Your task to perform on an android device: turn on data saver in the chrome app Image 0: 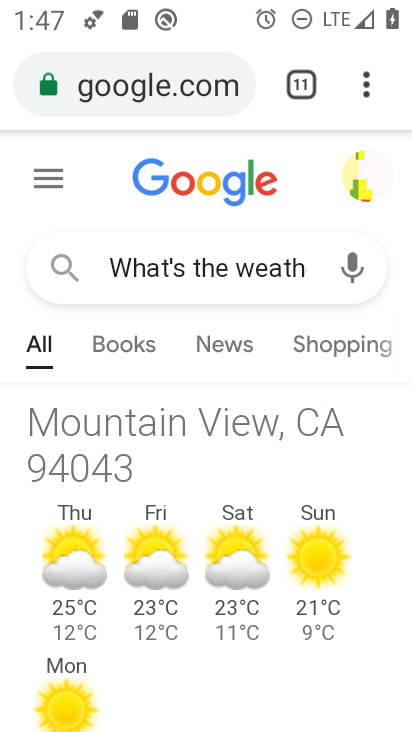
Step 0: click (370, 77)
Your task to perform on an android device: turn on data saver in the chrome app Image 1: 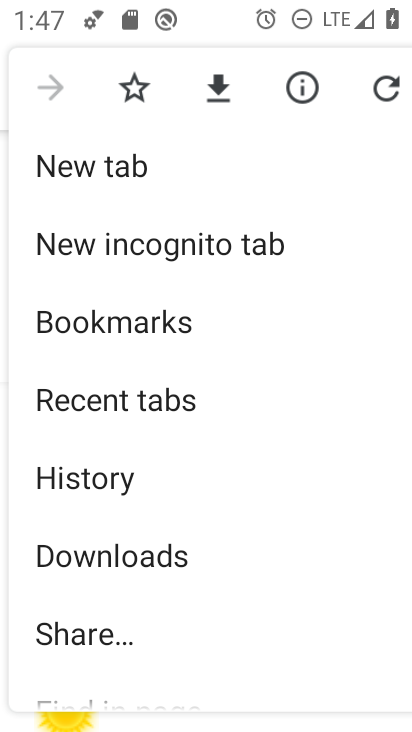
Step 1: drag from (131, 592) to (147, 530)
Your task to perform on an android device: turn on data saver in the chrome app Image 2: 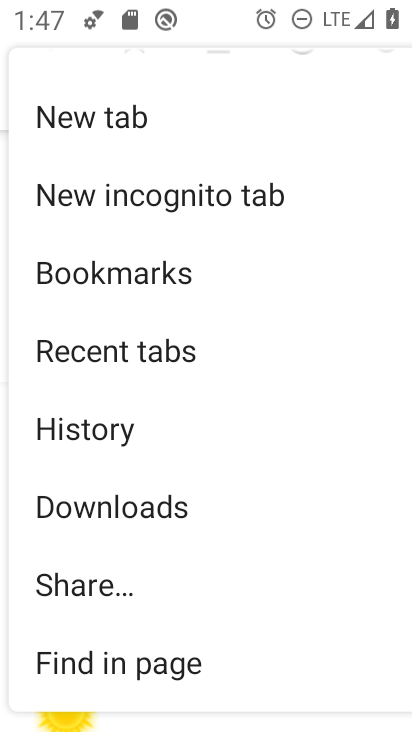
Step 2: drag from (154, 634) to (222, 265)
Your task to perform on an android device: turn on data saver in the chrome app Image 3: 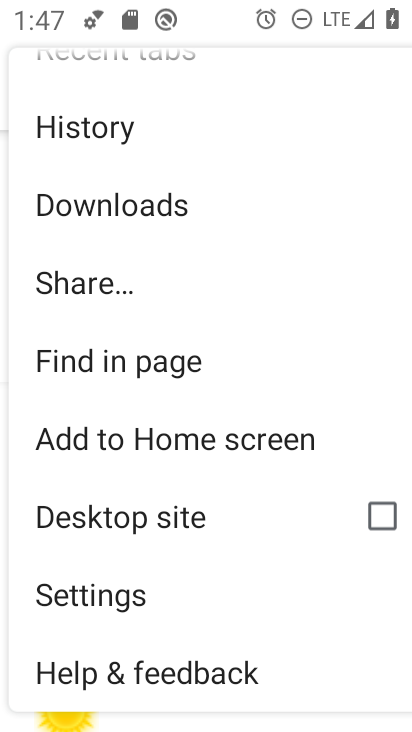
Step 3: click (130, 599)
Your task to perform on an android device: turn on data saver in the chrome app Image 4: 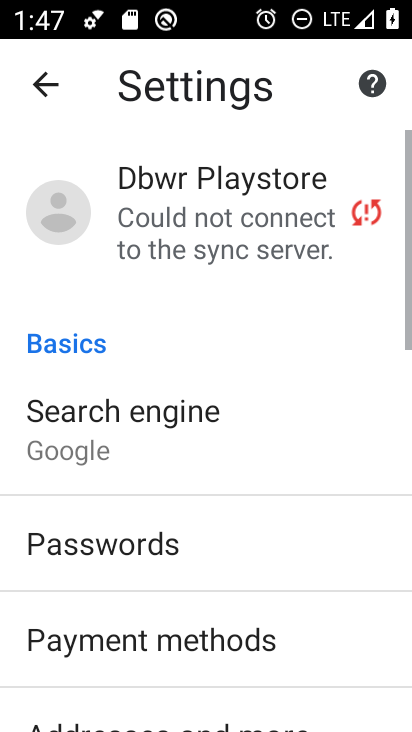
Step 4: drag from (218, 631) to (267, 217)
Your task to perform on an android device: turn on data saver in the chrome app Image 5: 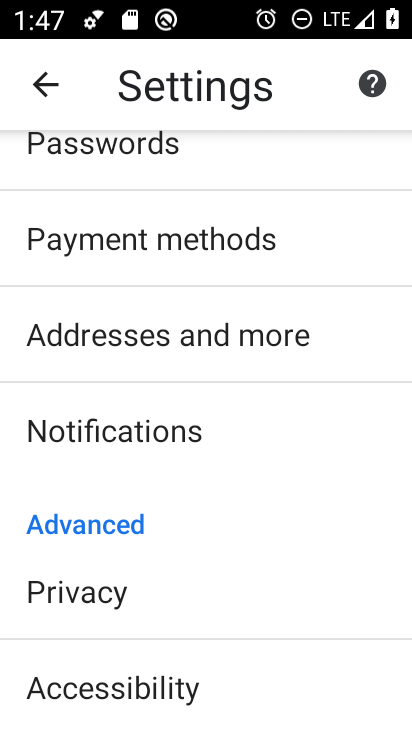
Step 5: drag from (175, 523) to (201, 299)
Your task to perform on an android device: turn on data saver in the chrome app Image 6: 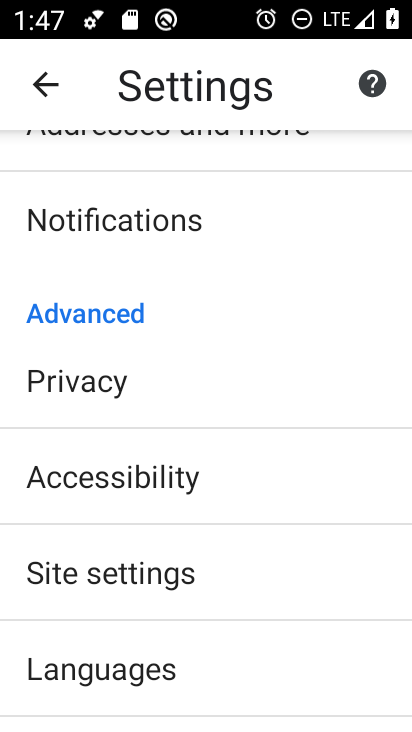
Step 6: drag from (168, 644) to (187, 285)
Your task to perform on an android device: turn on data saver in the chrome app Image 7: 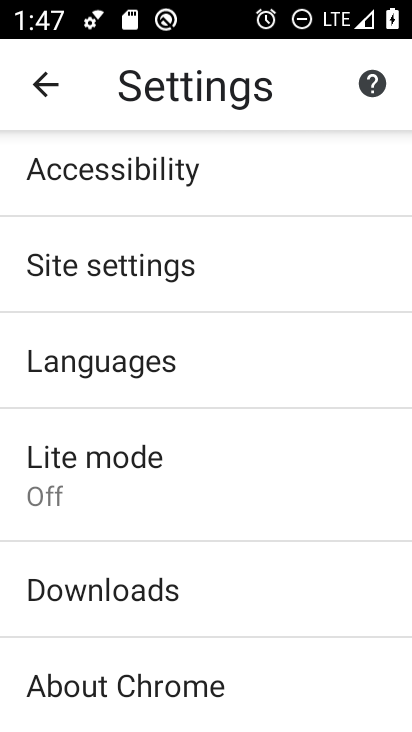
Step 7: click (108, 481)
Your task to perform on an android device: turn on data saver in the chrome app Image 8: 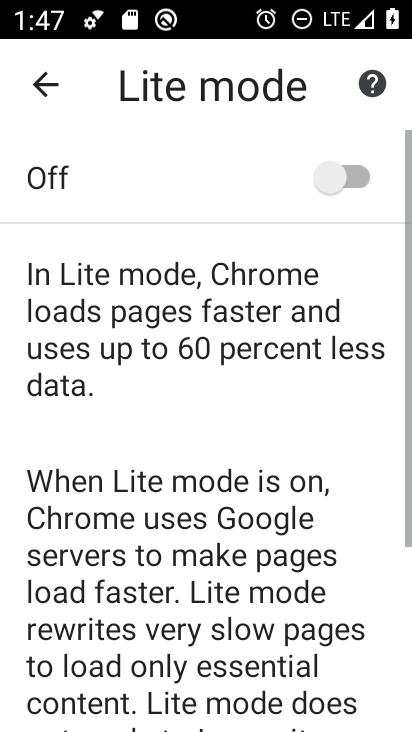
Step 8: click (329, 178)
Your task to perform on an android device: turn on data saver in the chrome app Image 9: 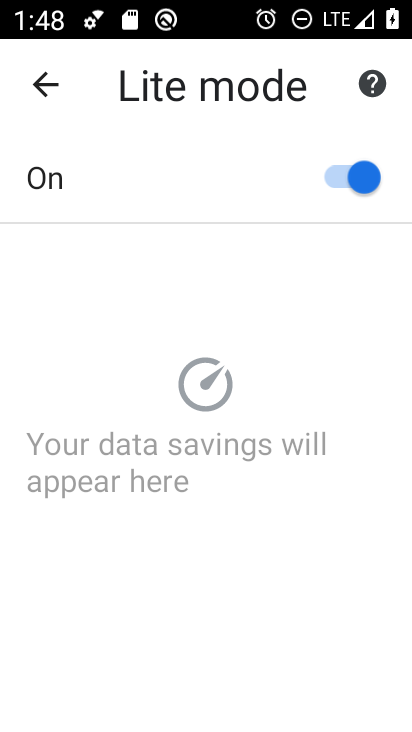
Step 9: task complete